Your task to perform on an android device: toggle priority inbox in the gmail app Image 0: 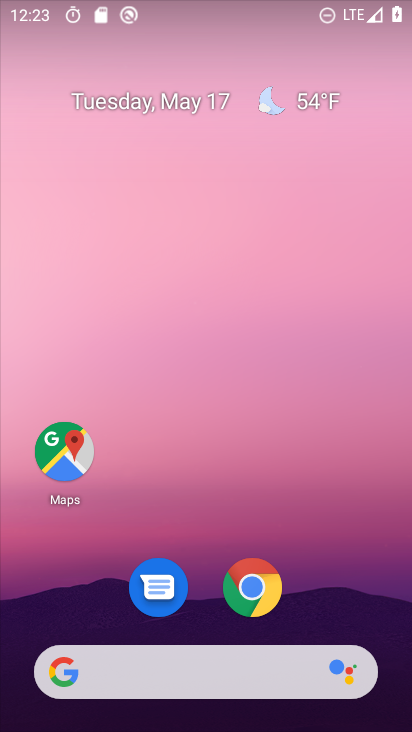
Step 0: drag from (199, 613) to (256, 219)
Your task to perform on an android device: toggle priority inbox in the gmail app Image 1: 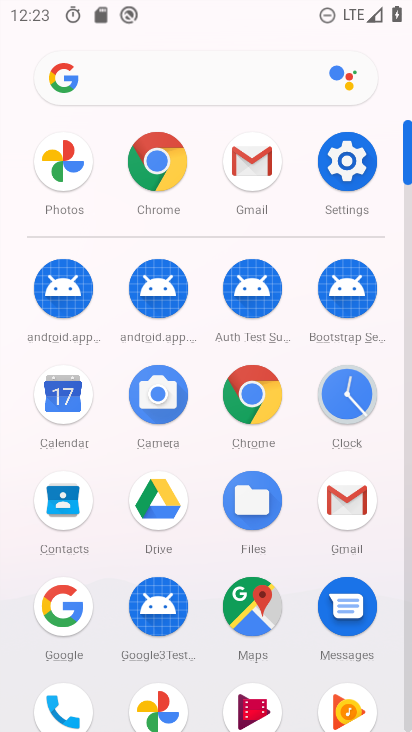
Step 1: drag from (207, 690) to (202, 257)
Your task to perform on an android device: toggle priority inbox in the gmail app Image 2: 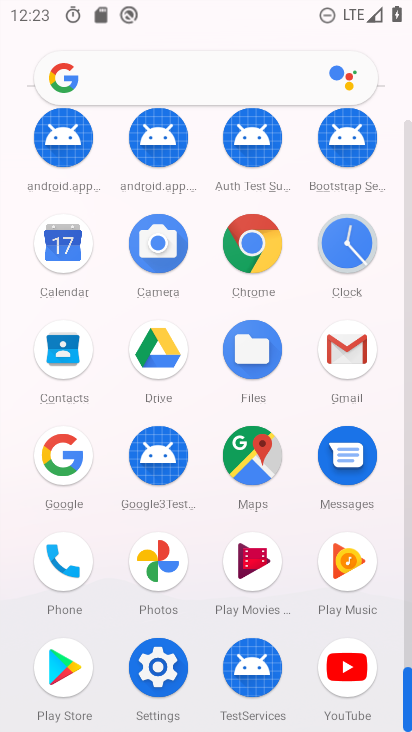
Step 2: drag from (218, 619) to (222, 191)
Your task to perform on an android device: toggle priority inbox in the gmail app Image 3: 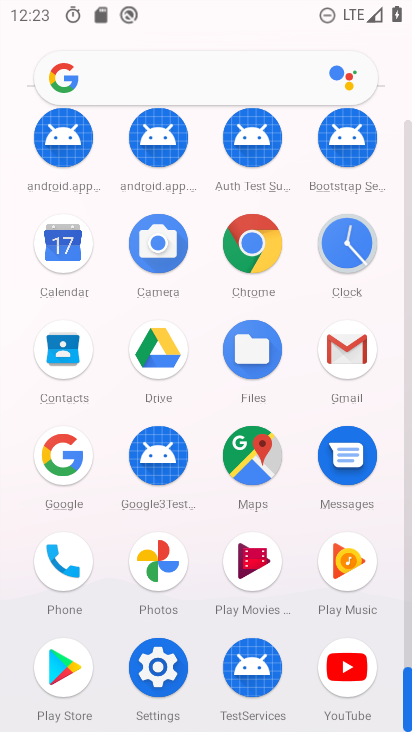
Step 3: click (359, 349)
Your task to perform on an android device: toggle priority inbox in the gmail app Image 4: 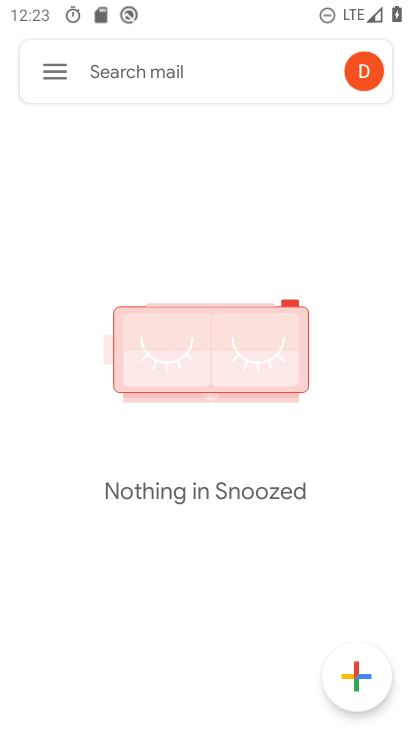
Step 4: drag from (201, 564) to (177, 274)
Your task to perform on an android device: toggle priority inbox in the gmail app Image 5: 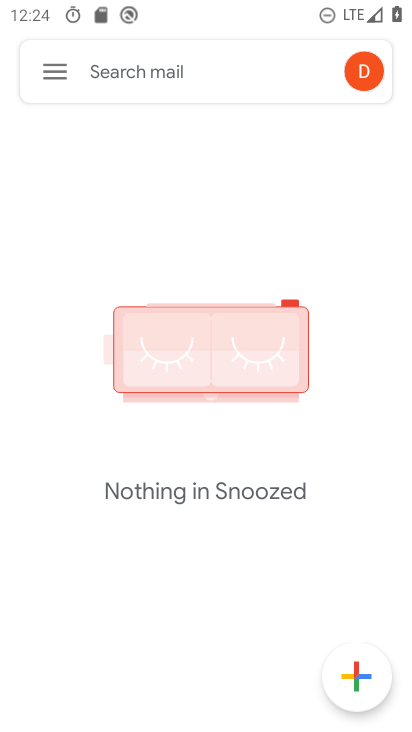
Step 5: drag from (241, 468) to (213, 45)
Your task to perform on an android device: toggle priority inbox in the gmail app Image 6: 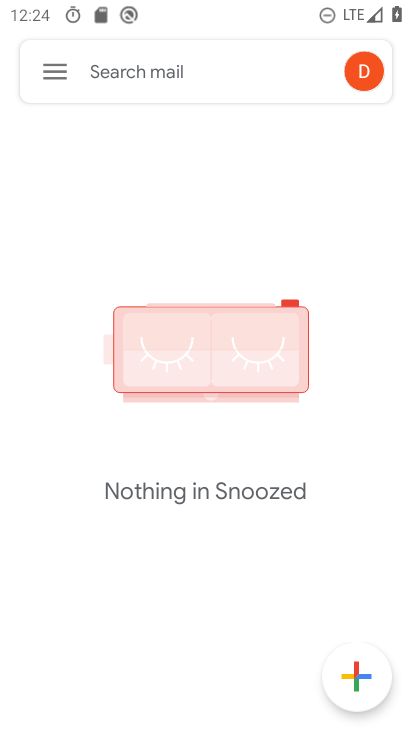
Step 6: drag from (226, 538) to (189, 177)
Your task to perform on an android device: toggle priority inbox in the gmail app Image 7: 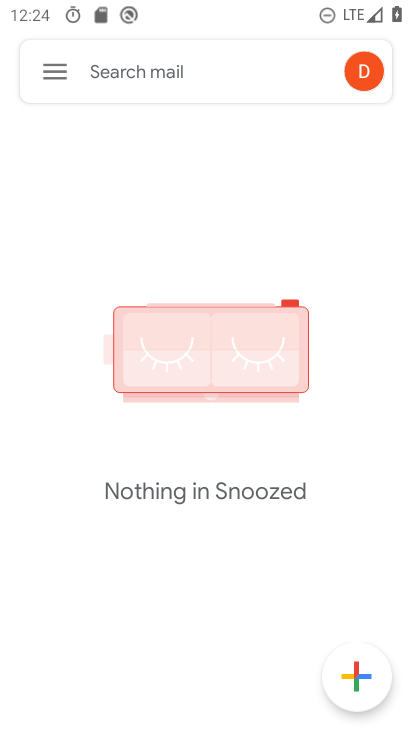
Step 7: drag from (232, 380) to (233, 256)
Your task to perform on an android device: toggle priority inbox in the gmail app Image 8: 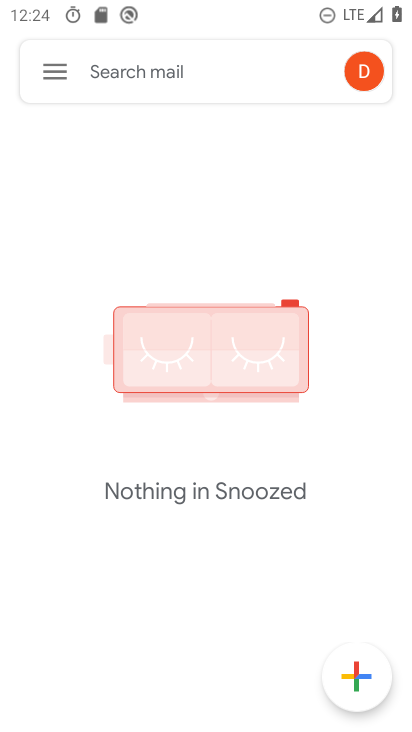
Step 8: click (54, 75)
Your task to perform on an android device: toggle priority inbox in the gmail app Image 9: 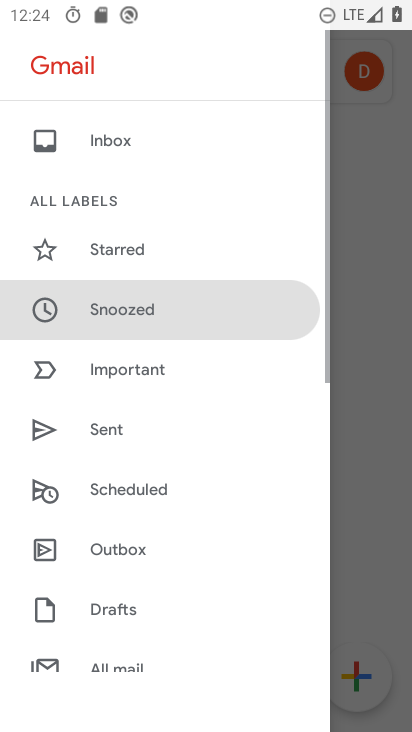
Step 9: drag from (151, 567) to (177, 164)
Your task to perform on an android device: toggle priority inbox in the gmail app Image 10: 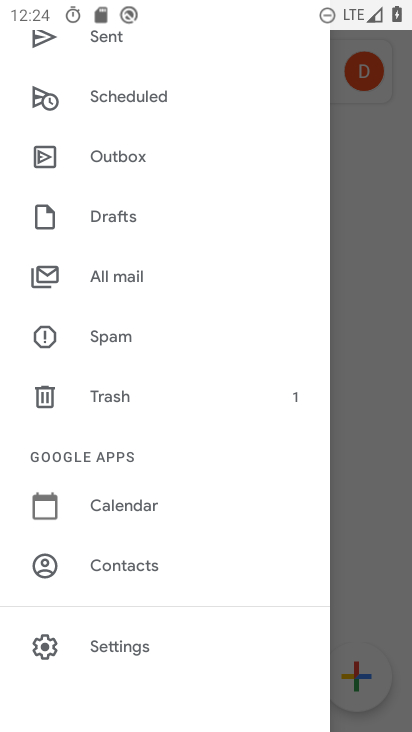
Step 10: drag from (126, 586) to (213, 197)
Your task to perform on an android device: toggle priority inbox in the gmail app Image 11: 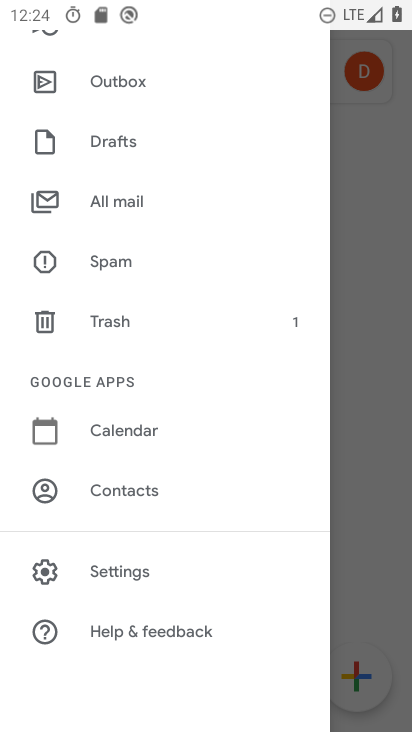
Step 11: drag from (174, 620) to (209, 305)
Your task to perform on an android device: toggle priority inbox in the gmail app Image 12: 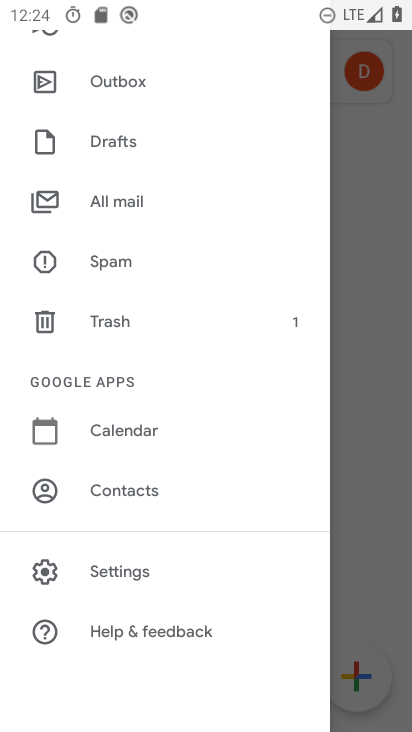
Step 12: drag from (178, 624) to (183, 325)
Your task to perform on an android device: toggle priority inbox in the gmail app Image 13: 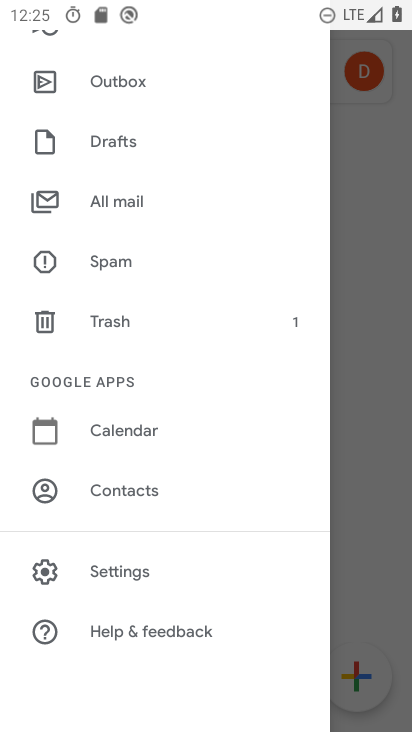
Step 13: drag from (108, 560) to (163, 319)
Your task to perform on an android device: toggle priority inbox in the gmail app Image 14: 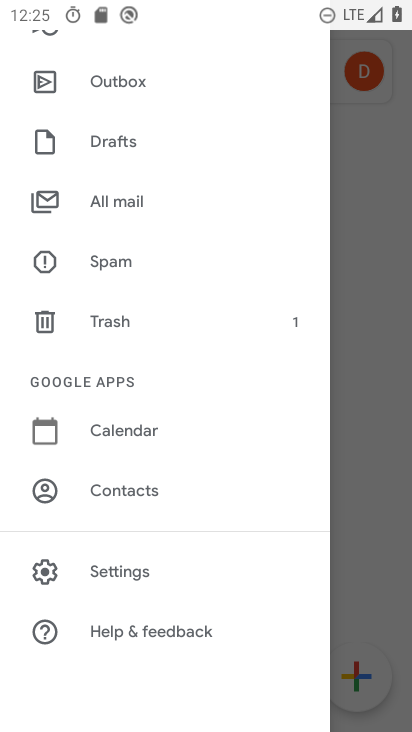
Step 14: drag from (114, 180) to (195, 488)
Your task to perform on an android device: toggle priority inbox in the gmail app Image 15: 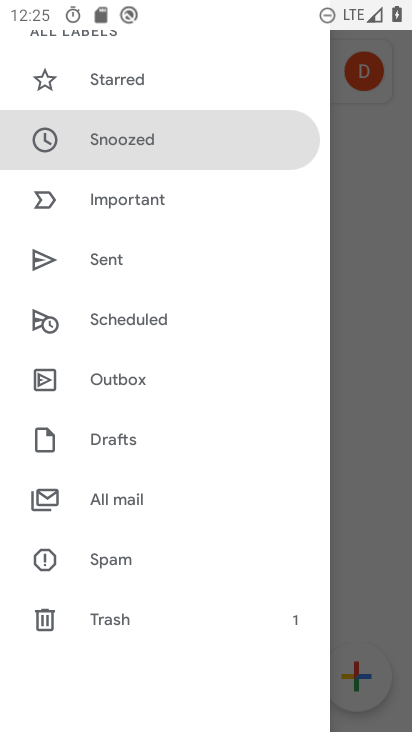
Step 15: drag from (155, 174) to (211, 675)
Your task to perform on an android device: toggle priority inbox in the gmail app Image 16: 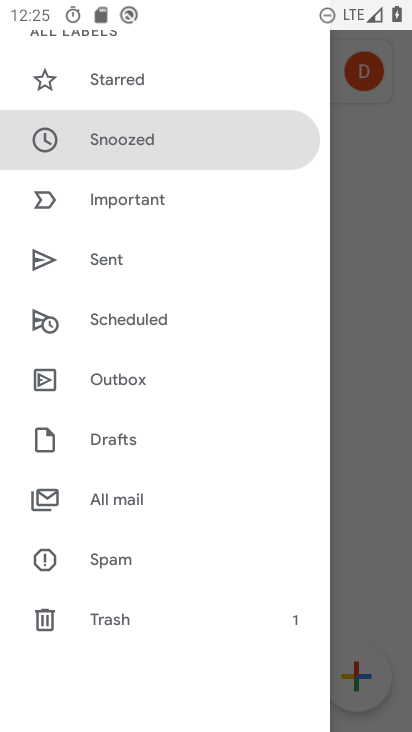
Step 16: drag from (130, 256) to (264, 702)
Your task to perform on an android device: toggle priority inbox in the gmail app Image 17: 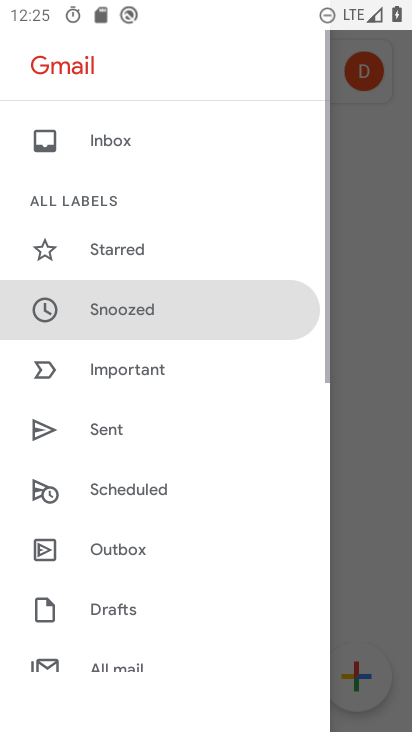
Step 17: click (116, 140)
Your task to perform on an android device: toggle priority inbox in the gmail app Image 18: 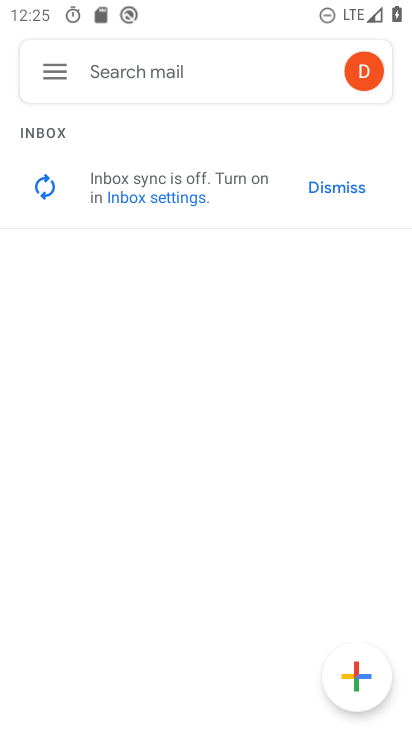
Step 18: click (65, 66)
Your task to perform on an android device: toggle priority inbox in the gmail app Image 19: 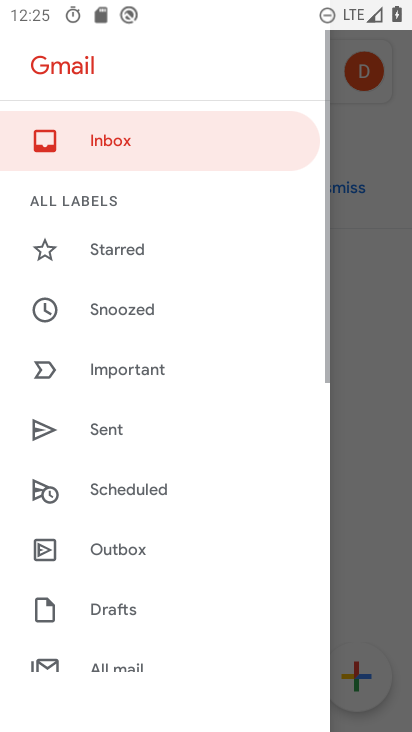
Step 19: drag from (103, 190) to (244, 473)
Your task to perform on an android device: toggle priority inbox in the gmail app Image 20: 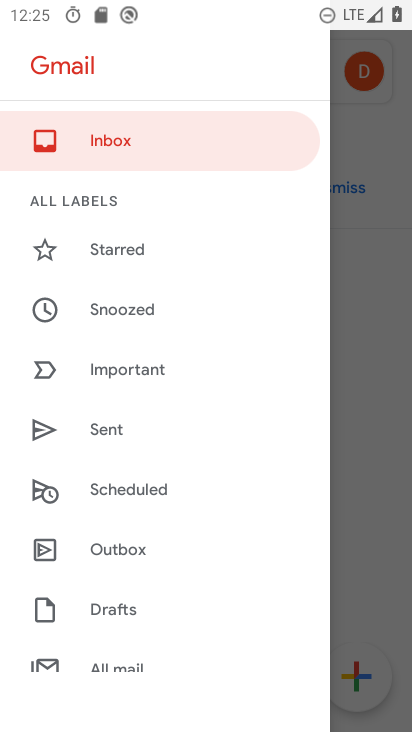
Step 20: click (114, 142)
Your task to perform on an android device: toggle priority inbox in the gmail app Image 21: 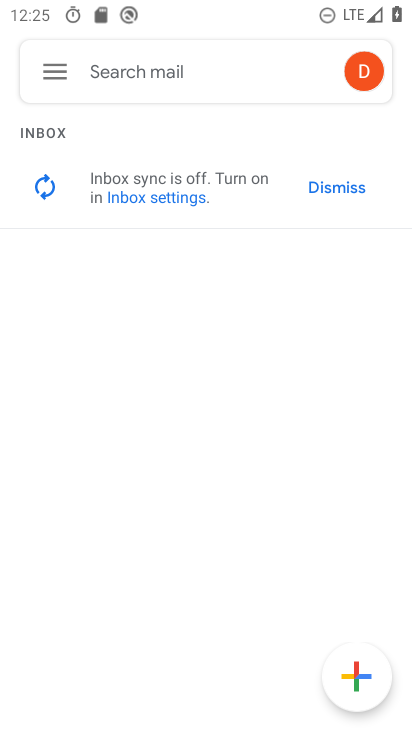
Step 21: drag from (269, 476) to (260, 322)
Your task to perform on an android device: toggle priority inbox in the gmail app Image 22: 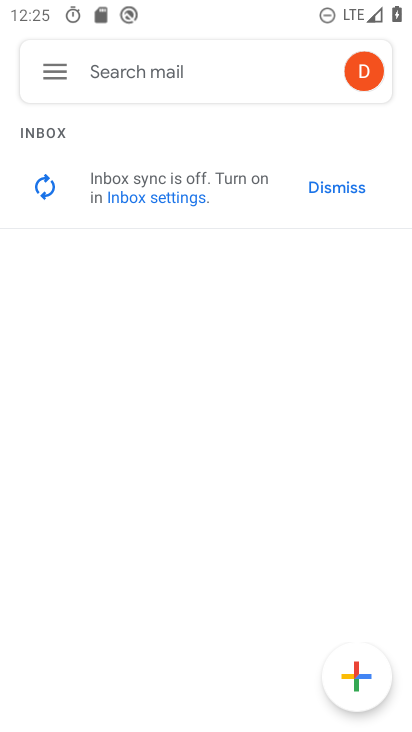
Step 22: click (60, 57)
Your task to perform on an android device: toggle priority inbox in the gmail app Image 23: 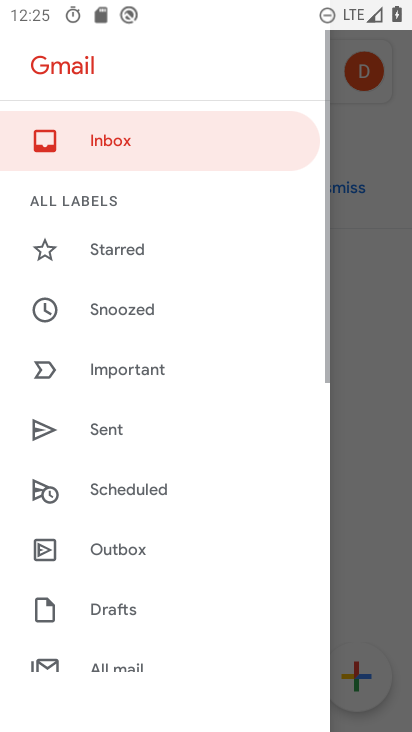
Step 23: drag from (181, 466) to (176, 199)
Your task to perform on an android device: toggle priority inbox in the gmail app Image 24: 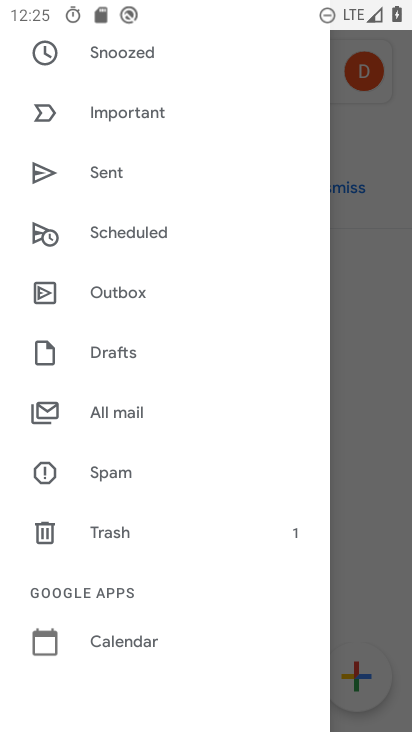
Step 24: drag from (142, 396) to (169, 246)
Your task to perform on an android device: toggle priority inbox in the gmail app Image 25: 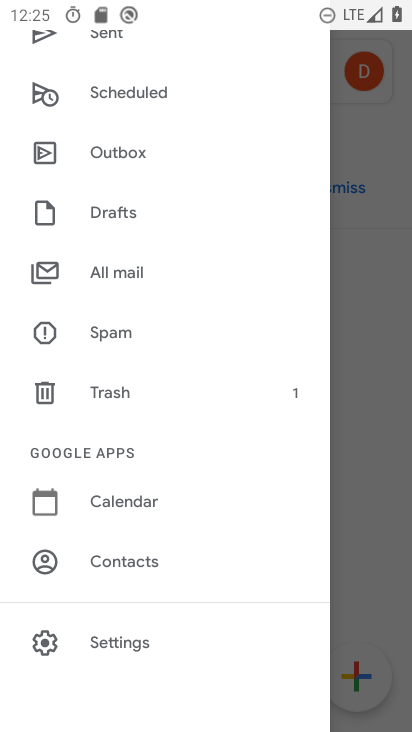
Step 25: drag from (166, 496) to (170, 272)
Your task to perform on an android device: toggle priority inbox in the gmail app Image 26: 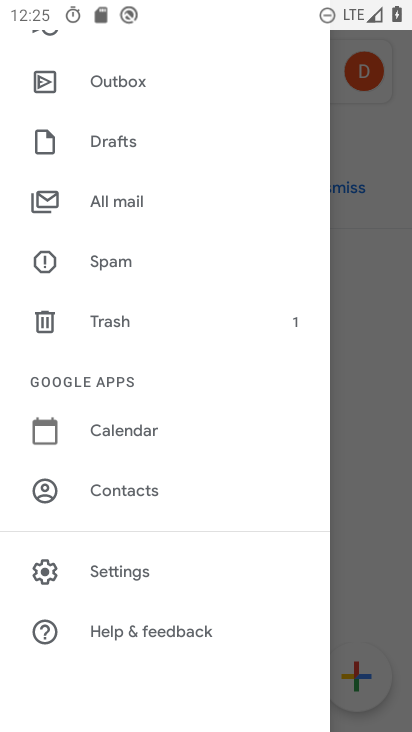
Step 26: click (155, 581)
Your task to perform on an android device: toggle priority inbox in the gmail app Image 27: 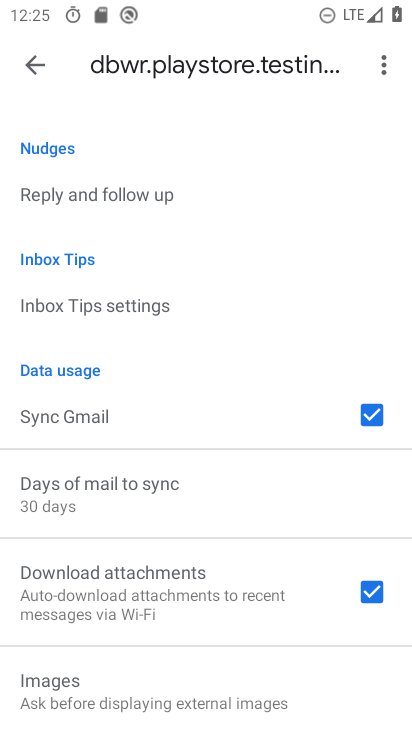
Step 27: drag from (182, 627) to (202, 229)
Your task to perform on an android device: toggle priority inbox in the gmail app Image 28: 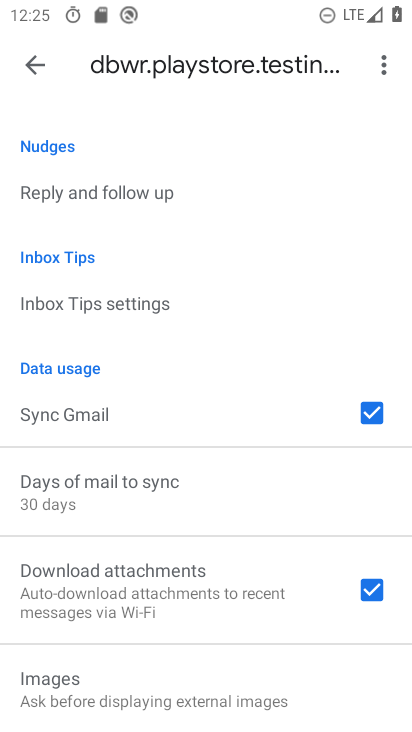
Step 28: drag from (211, 630) to (272, 351)
Your task to perform on an android device: toggle priority inbox in the gmail app Image 29: 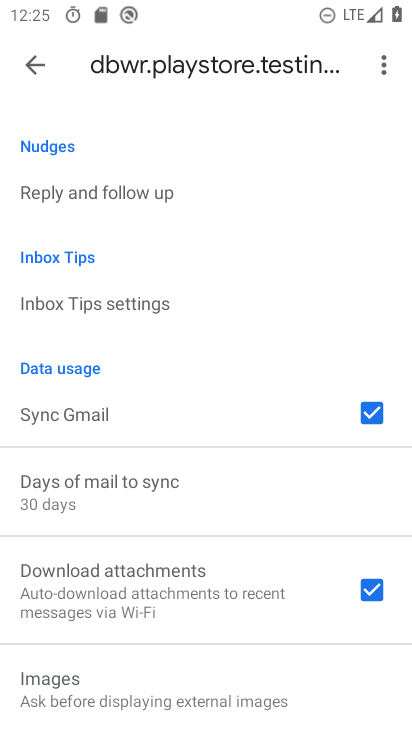
Step 29: drag from (185, 513) to (232, 333)
Your task to perform on an android device: toggle priority inbox in the gmail app Image 30: 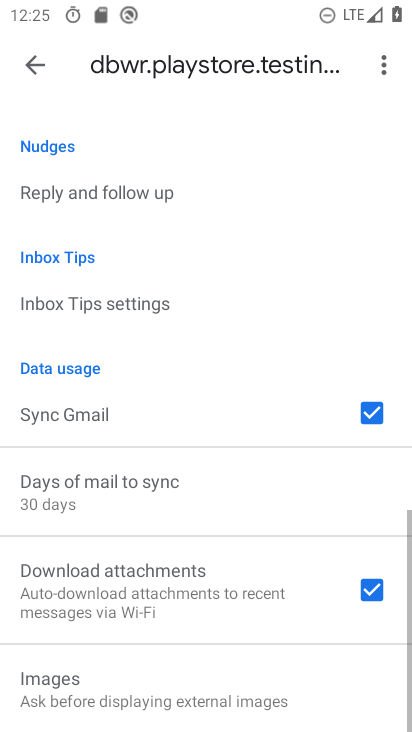
Step 30: drag from (145, 273) to (283, 720)
Your task to perform on an android device: toggle priority inbox in the gmail app Image 31: 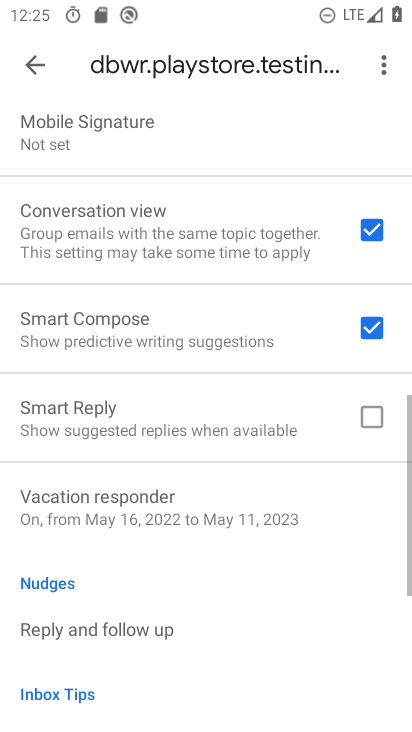
Step 31: drag from (145, 262) to (297, 729)
Your task to perform on an android device: toggle priority inbox in the gmail app Image 32: 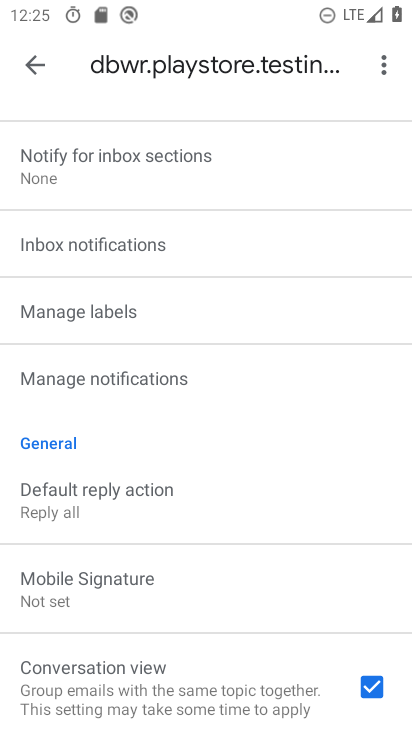
Step 32: drag from (141, 230) to (278, 695)
Your task to perform on an android device: toggle priority inbox in the gmail app Image 33: 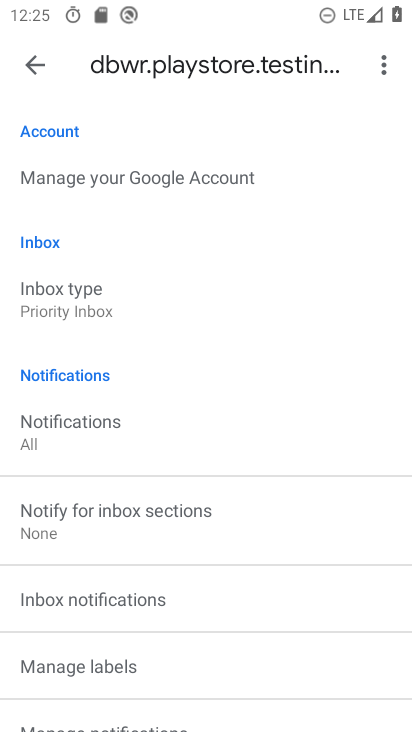
Step 33: drag from (152, 241) to (336, 730)
Your task to perform on an android device: toggle priority inbox in the gmail app Image 34: 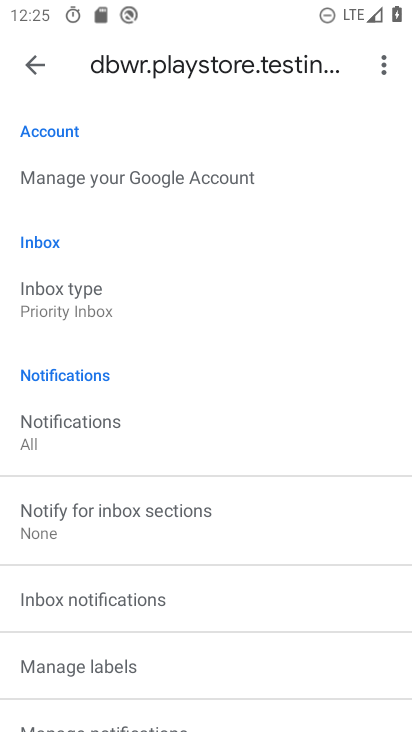
Step 34: click (133, 292)
Your task to perform on an android device: toggle priority inbox in the gmail app Image 35: 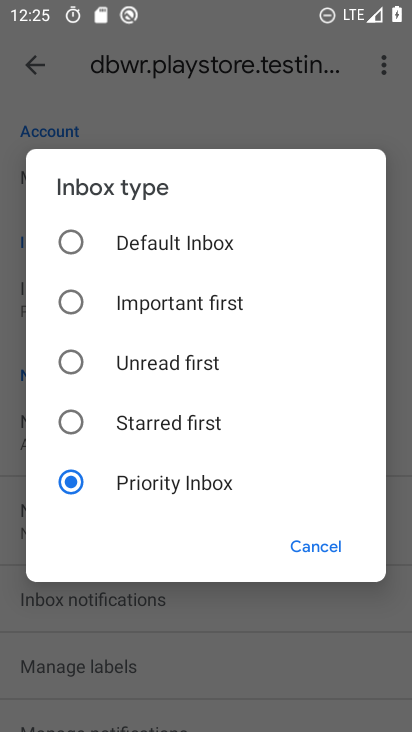
Step 35: click (117, 250)
Your task to perform on an android device: toggle priority inbox in the gmail app Image 36: 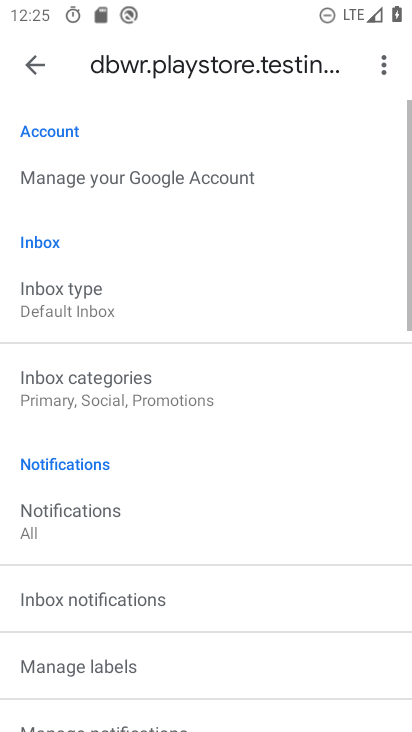
Step 36: click (124, 300)
Your task to perform on an android device: toggle priority inbox in the gmail app Image 37: 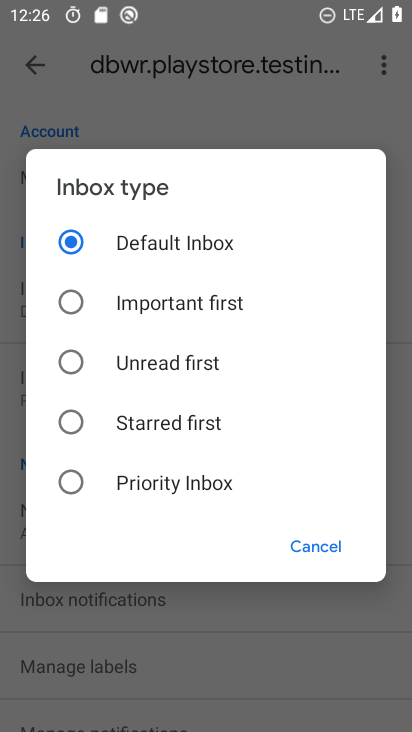
Step 37: click (148, 468)
Your task to perform on an android device: toggle priority inbox in the gmail app Image 38: 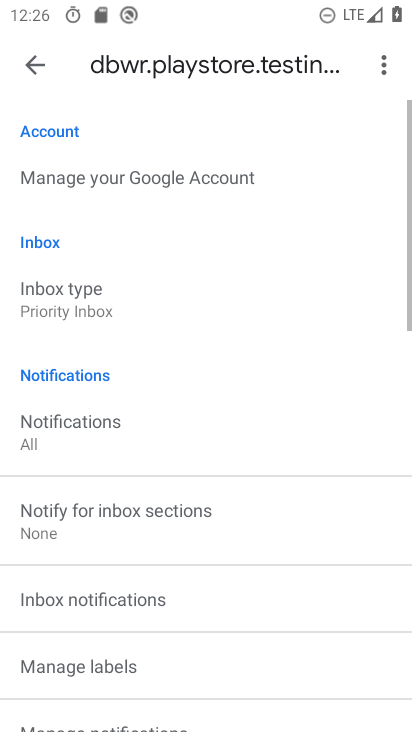
Step 38: task complete